Your task to perform on an android device: stop showing notifications on the lock screen Image 0: 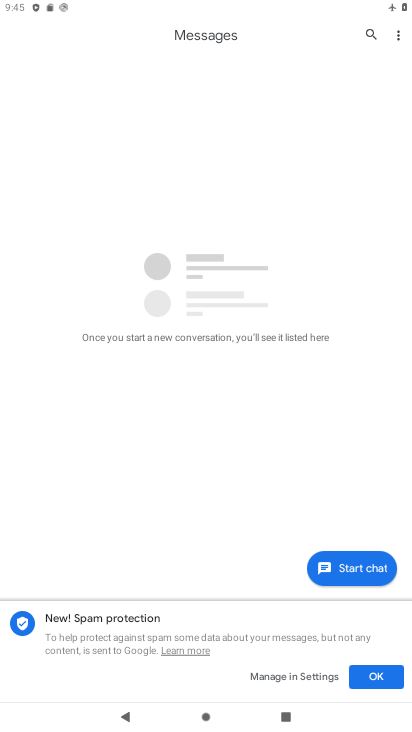
Step 0: press home button
Your task to perform on an android device: stop showing notifications on the lock screen Image 1: 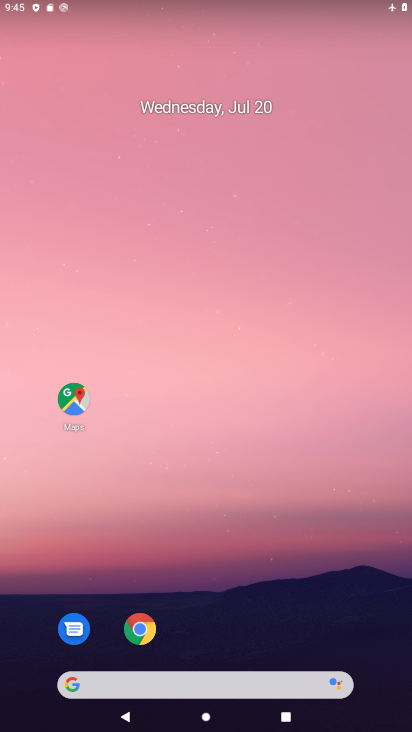
Step 1: drag from (215, 520) to (52, 4)
Your task to perform on an android device: stop showing notifications on the lock screen Image 2: 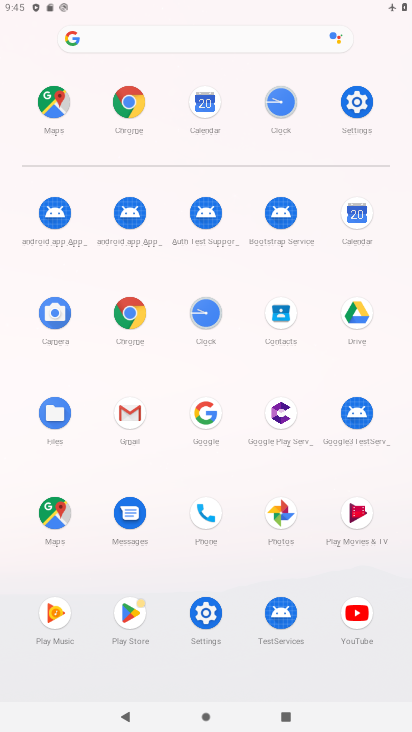
Step 2: click (365, 107)
Your task to perform on an android device: stop showing notifications on the lock screen Image 3: 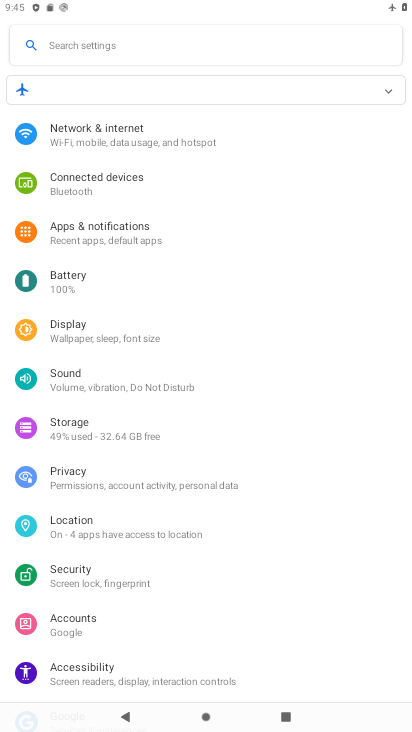
Step 3: click (117, 235)
Your task to perform on an android device: stop showing notifications on the lock screen Image 4: 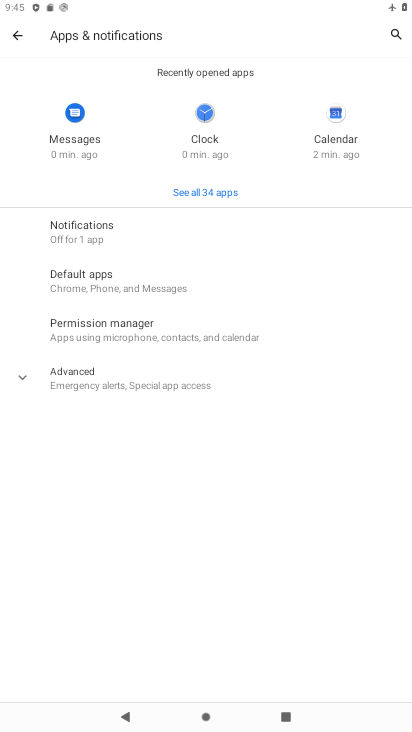
Step 4: click (88, 215)
Your task to perform on an android device: stop showing notifications on the lock screen Image 5: 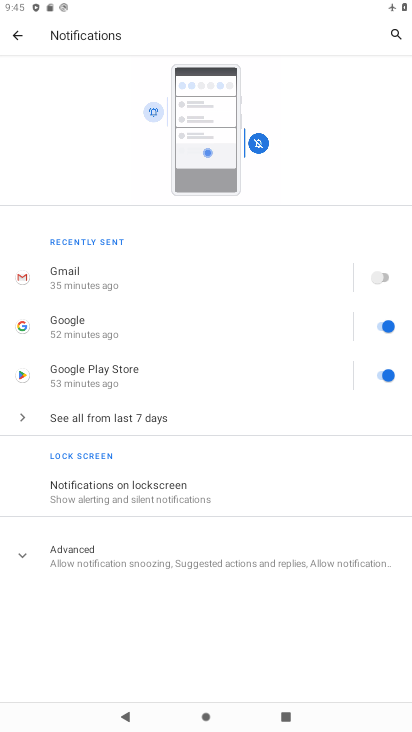
Step 5: click (109, 490)
Your task to perform on an android device: stop showing notifications on the lock screen Image 6: 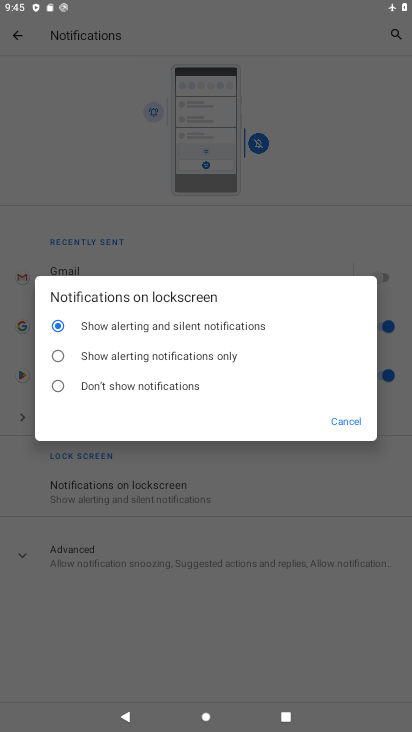
Step 6: click (96, 390)
Your task to perform on an android device: stop showing notifications on the lock screen Image 7: 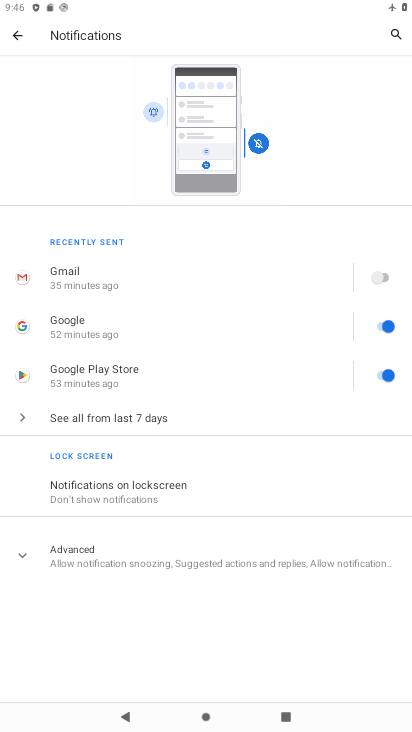
Step 7: task complete